Your task to perform on an android device: Search for the new Nike Air Jordan 33 on Nike.com Image 0: 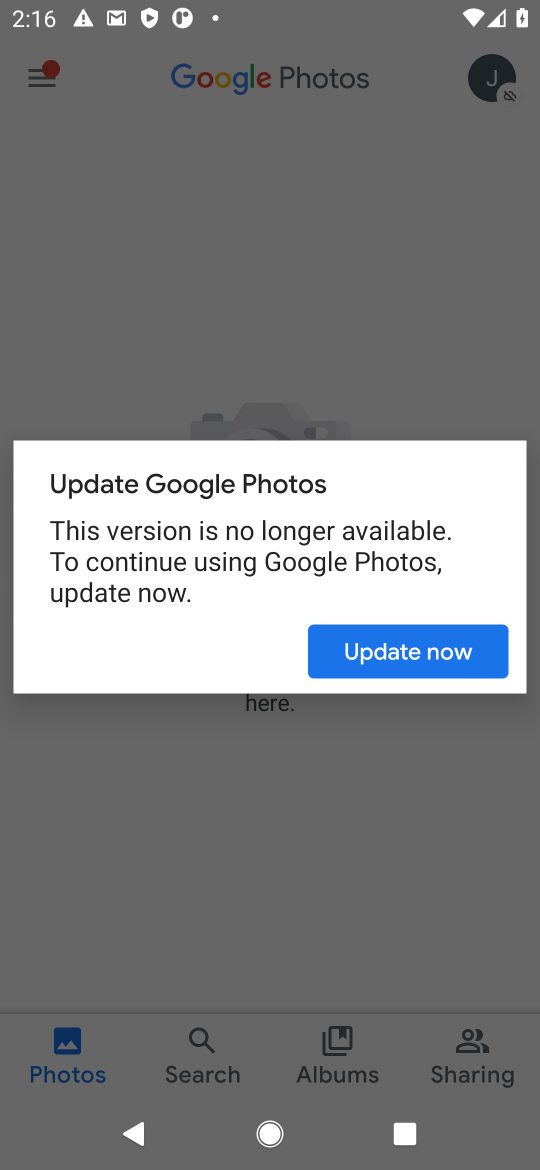
Step 0: press home button
Your task to perform on an android device: Search for the new Nike Air Jordan 33 on Nike.com Image 1: 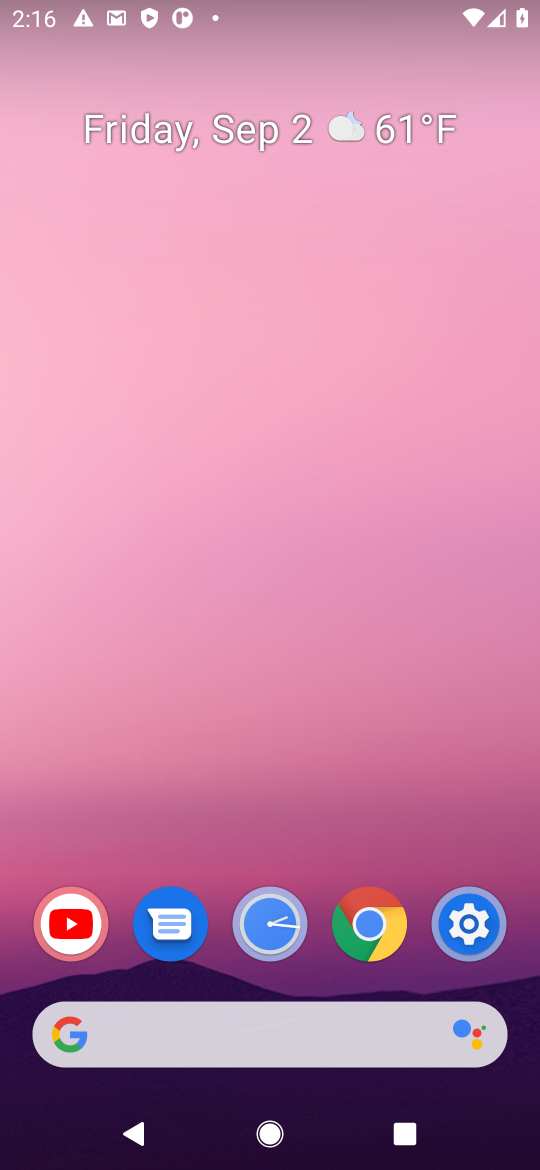
Step 1: click (374, 1028)
Your task to perform on an android device: Search for the new Nike Air Jordan 33 on Nike.com Image 2: 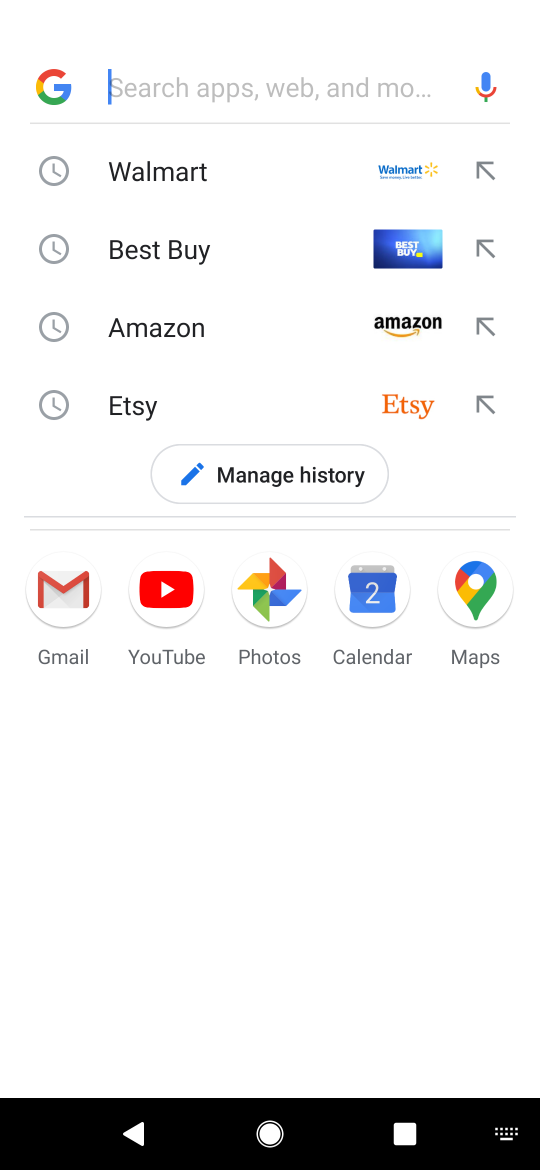
Step 2: press enter
Your task to perform on an android device: Search for the new Nike Air Jordan 33 on Nike.com Image 3: 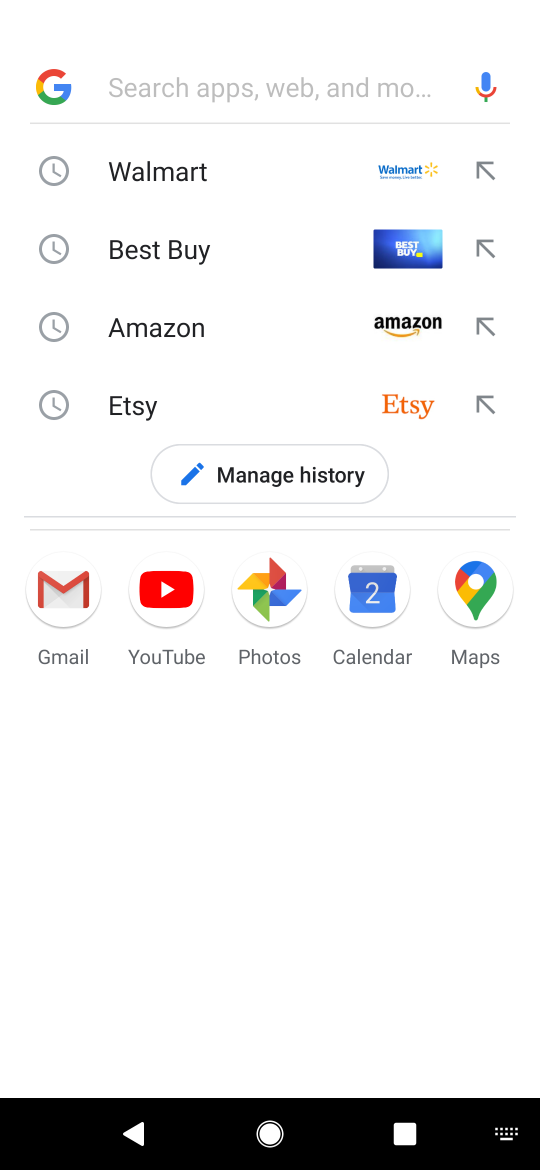
Step 3: type "nike.com"
Your task to perform on an android device: Search for the new Nike Air Jordan 33 on Nike.com Image 4: 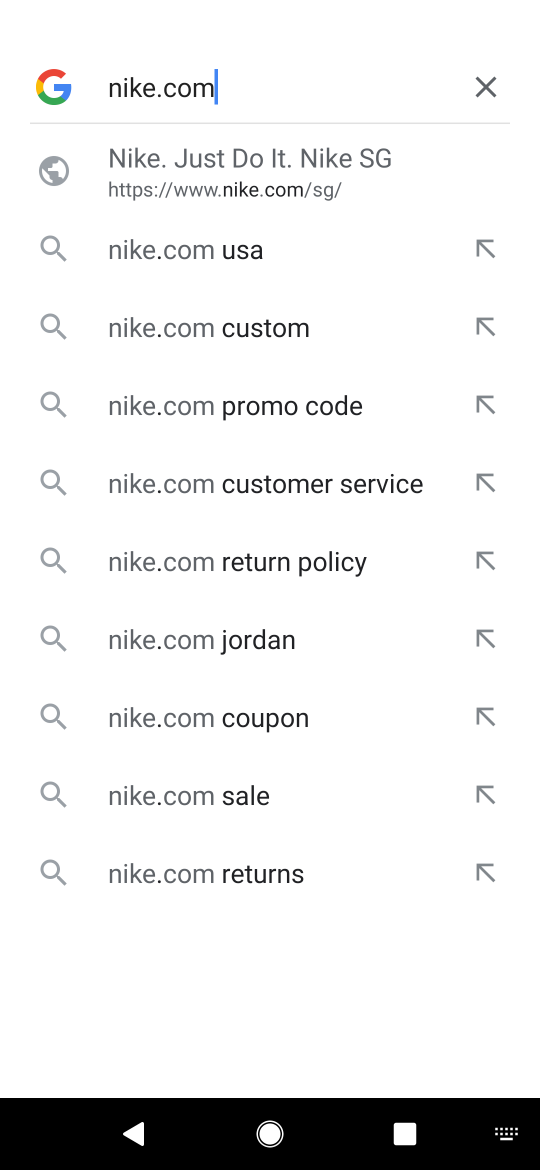
Step 4: click (303, 159)
Your task to perform on an android device: Search for the new Nike Air Jordan 33 on Nike.com Image 5: 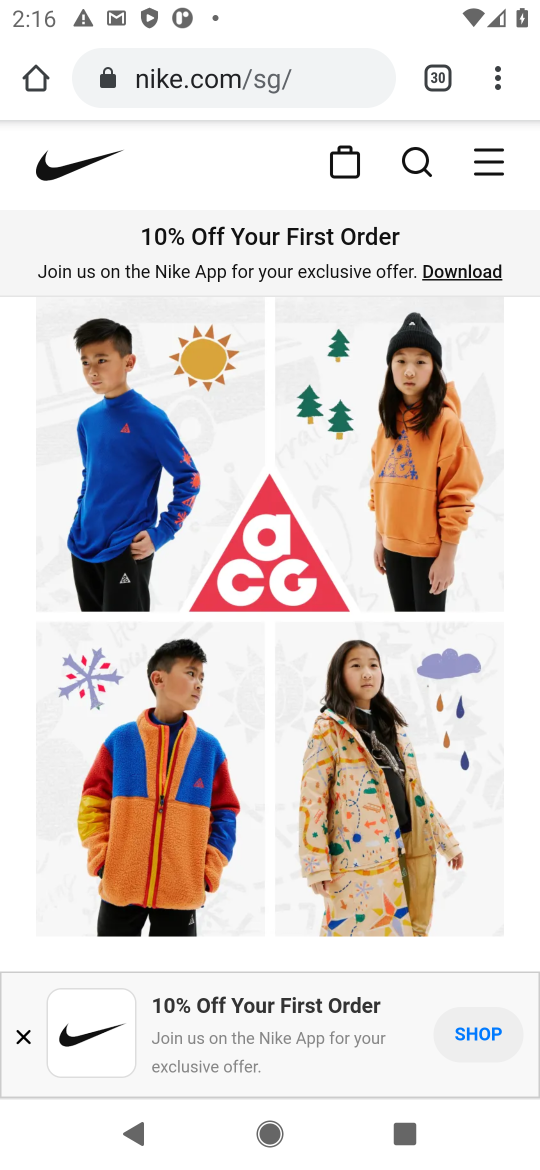
Step 5: click (413, 155)
Your task to perform on an android device: Search for the new Nike Air Jordan 33 on Nike.com Image 6: 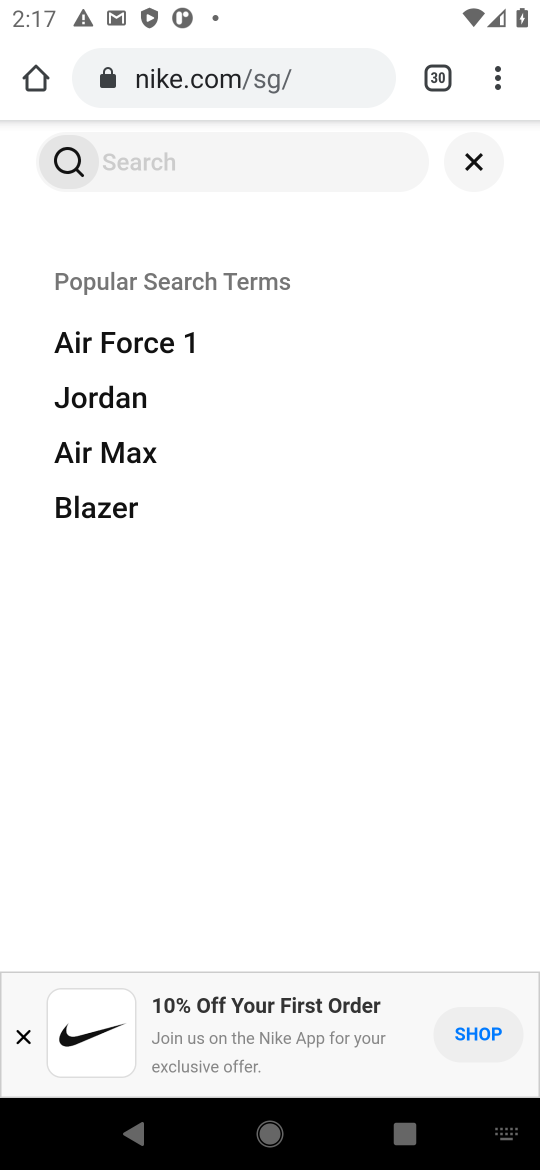
Step 6: press enter
Your task to perform on an android device: Search for the new Nike Air Jordan 33 on Nike.com Image 7: 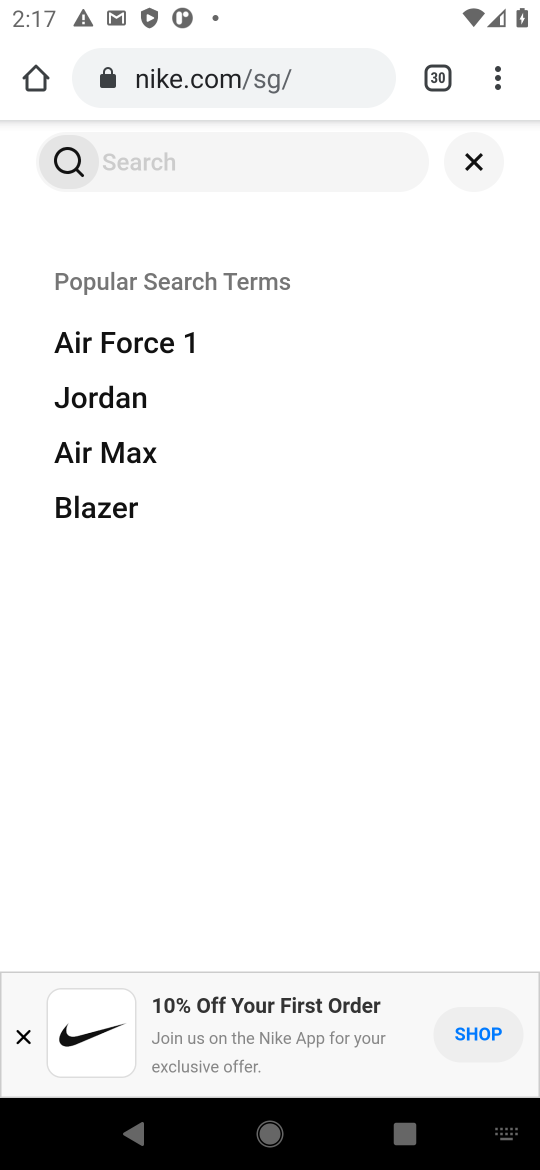
Step 7: type "nike air jordan 33"
Your task to perform on an android device: Search for the new Nike Air Jordan 33 on Nike.com Image 8: 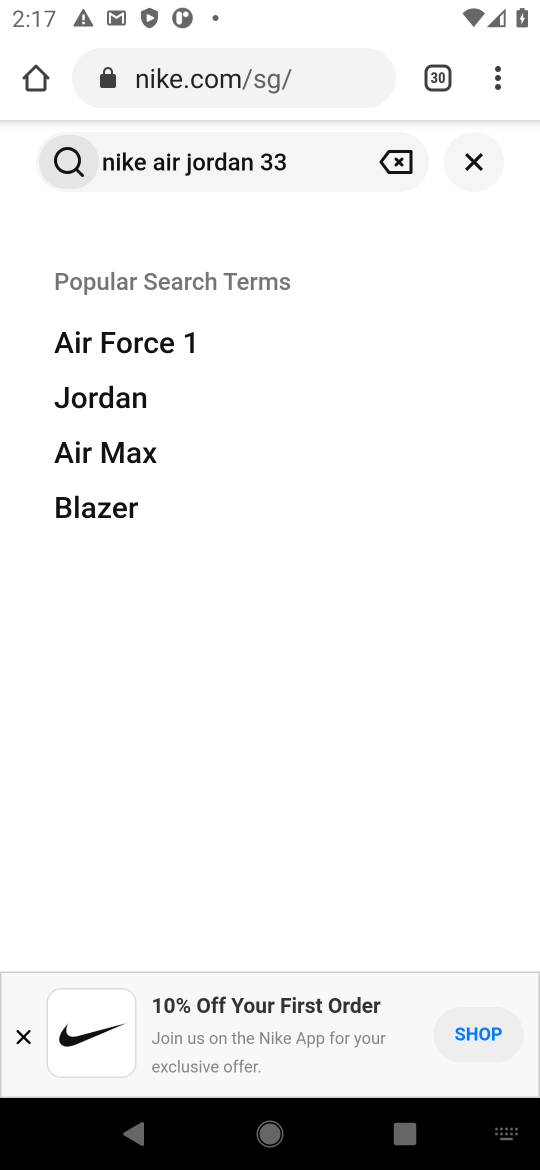
Step 8: click (52, 172)
Your task to perform on an android device: Search for the new Nike Air Jordan 33 on Nike.com Image 9: 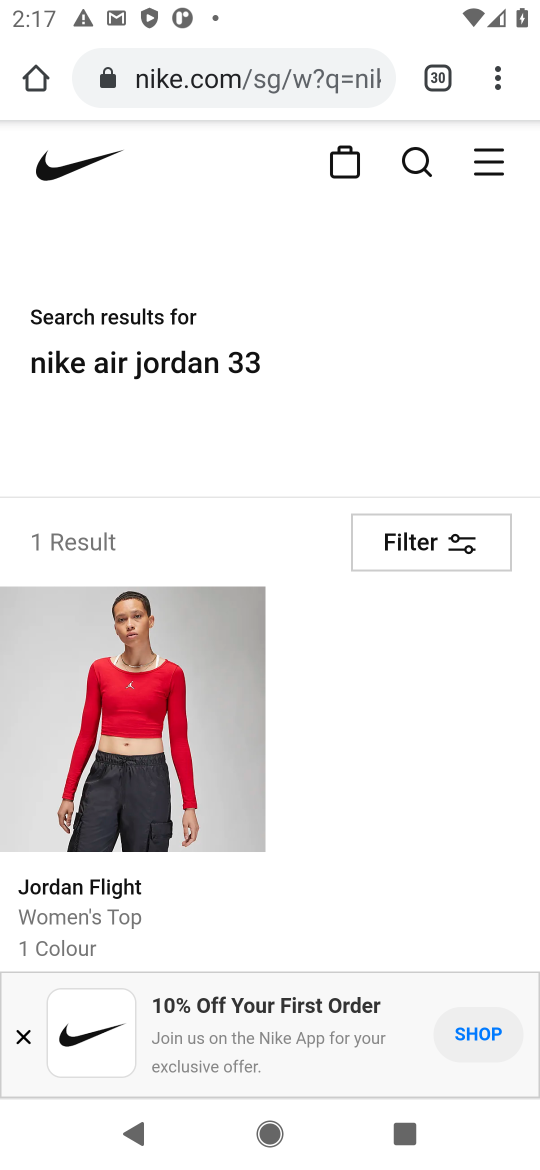
Step 9: task complete